Your task to perform on an android device: turn off location Image 0: 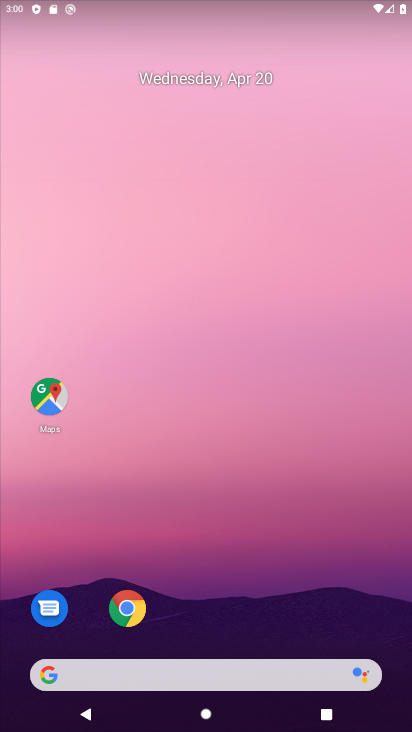
Step 0: drag from (200, 648) to (159, 145)
Your task to perform on an android device: turn off location Image 1: 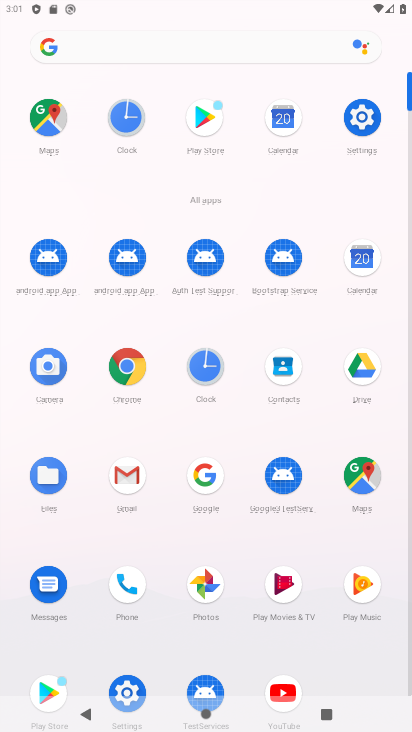
Step 1: click (362, 119)
Your task to perform on an android device: turn off location Image 2: 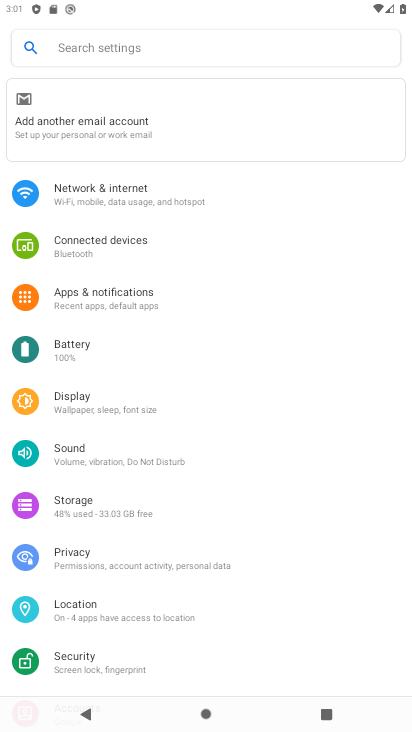
Step 2: click (66, 597)
Your task to perform on an android device: turn off location Image 3: 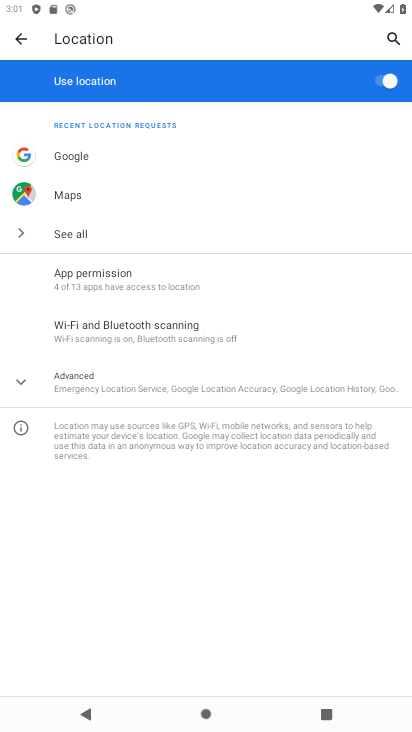
Step 3: click (377, 82)
Your task to perform on an android device: turn off location Image 4: 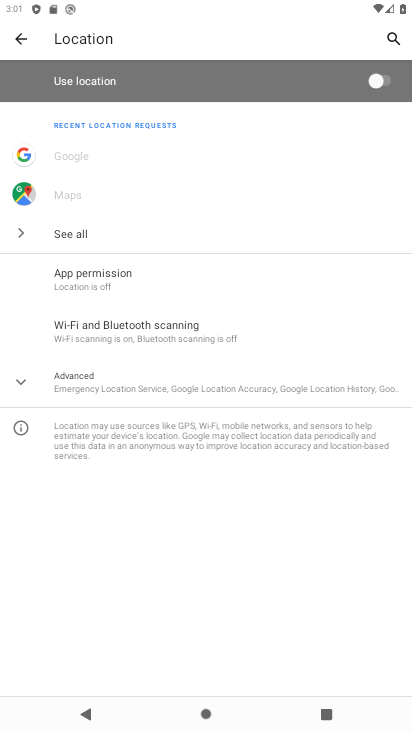
Step 4: task complete